Your task to perform on an android device: check data usage Image 0: 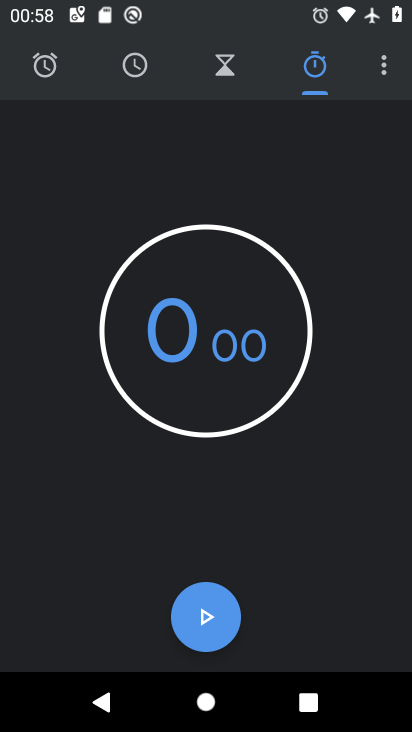
Step 0: press home button
Your task to perform on an android device: check data usage Image 1: 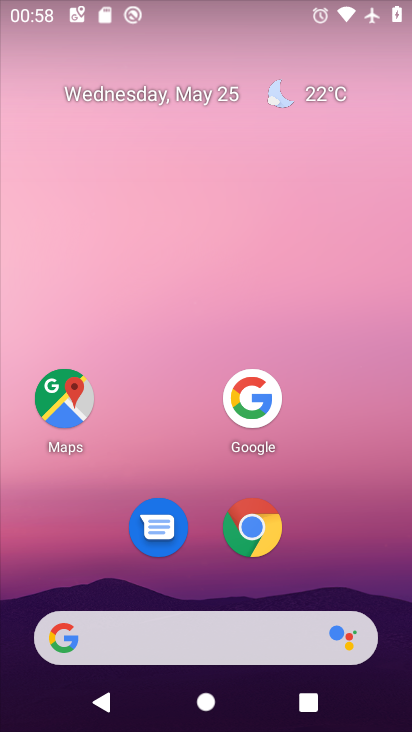
Step 1: drag from (153, 635) to (324, 44)
Your task to perform on an android device: check data usage Image 2: 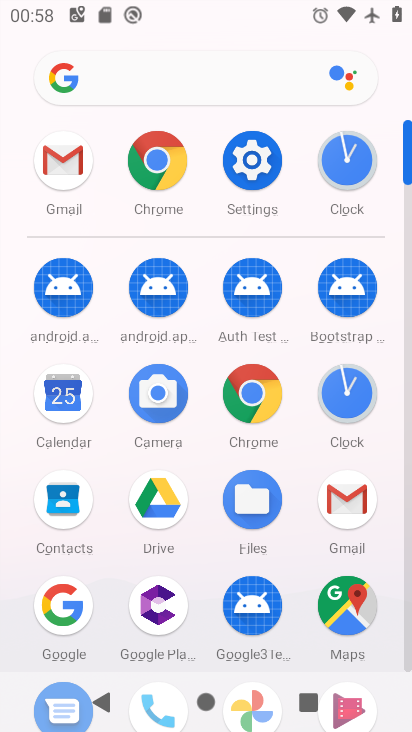
Step 2: click (249, 173)
Your task to perform on an android device: check data usage Image 3: 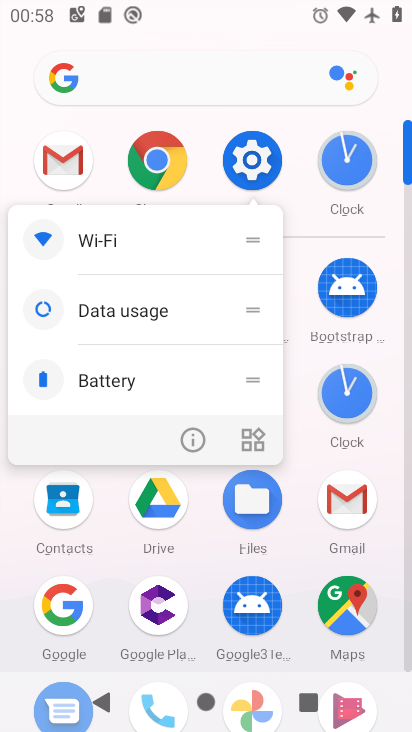
Step 3: click (254, 156)
Your task to perform on an android device: check data usage Image 4: 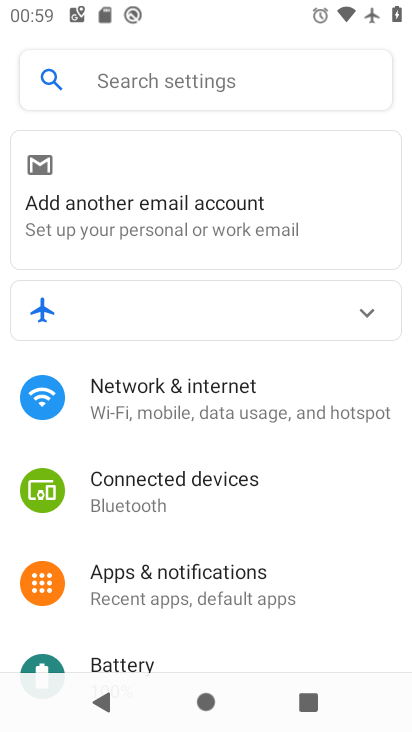
Step 4: drag from (252, 636) to (262, 592)
Your task to perform on an android device: check data usage Image 5: 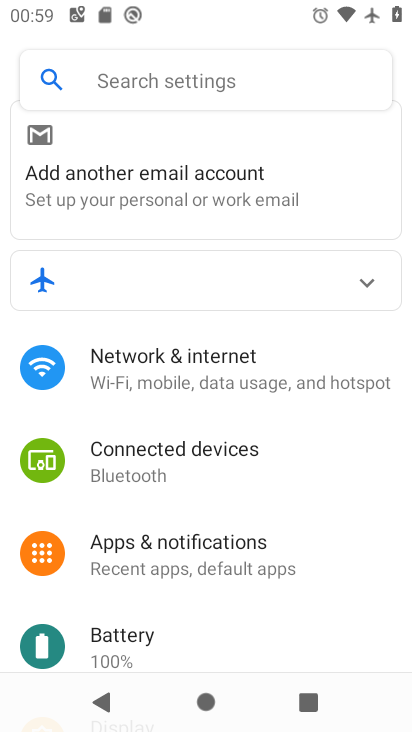
Step 5: click (215, 377)
Your task to perform on an android device: check data usage Image 6: 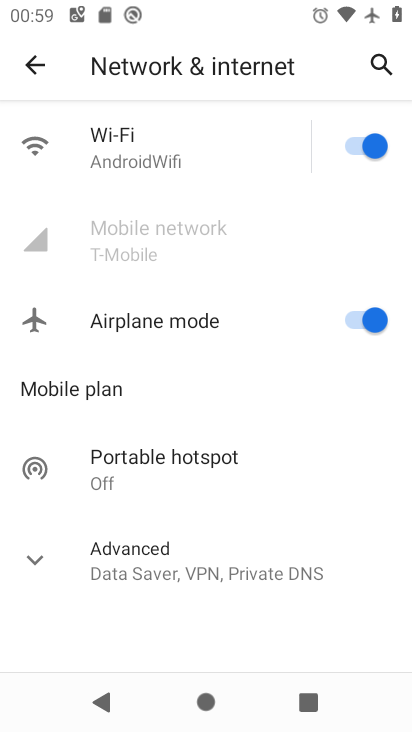
Step 6: click (120, 150)
Your task to perform on an android device: check data usage Image 7: 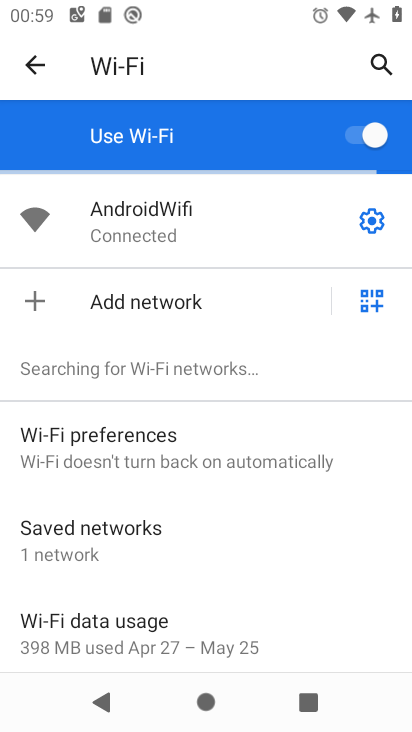
Step 7: drag from (172, 555) to (266, 184)
Your task to perform on an android device: check data usage Image 8: 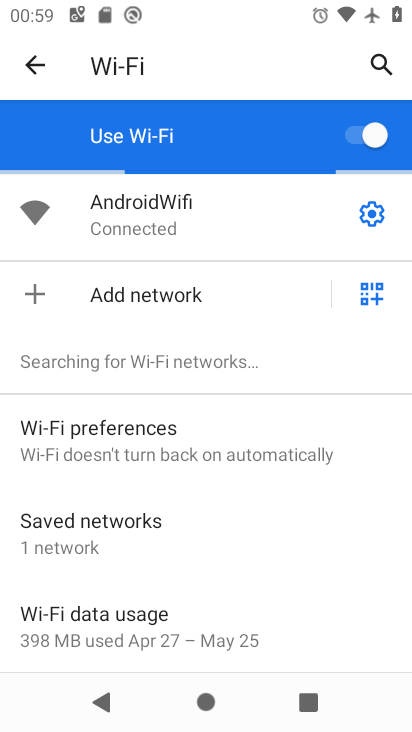
Step 8: click (113, 610)
Your task to perform on an android device: check data usage Image 9: 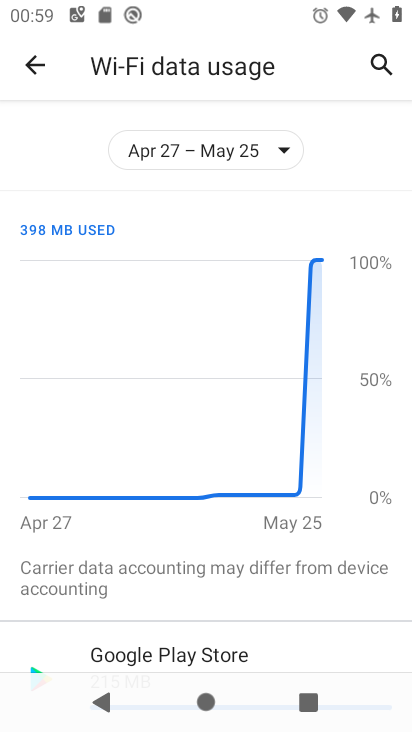
Step 9: task complete